Your task to perform on an android device: add a contact in the contacts app Image 0: 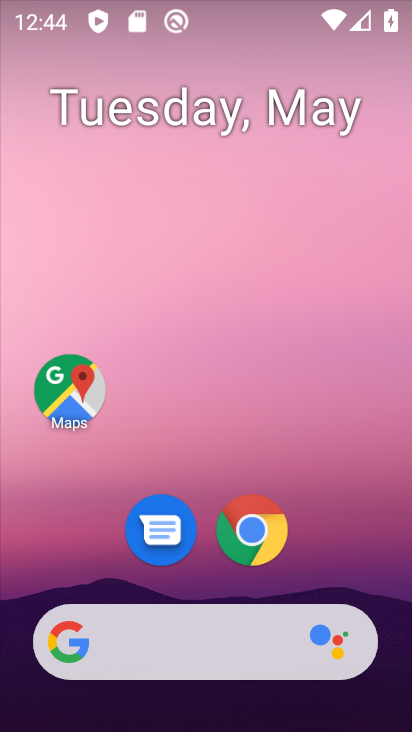
Step 0: drag from (169, 603) to (173, 279)
Your task to perform on an android device: add a contact in the contacts app Image 1: 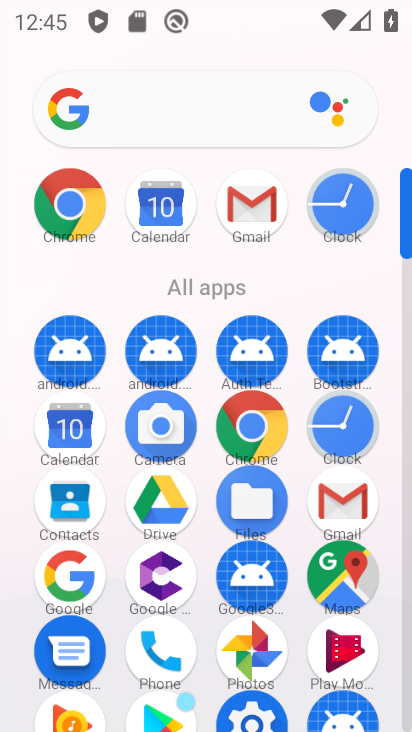
Step 1: click (72, 506)
Your task to perform on an android device: add a contact in the contacts app Image 2: 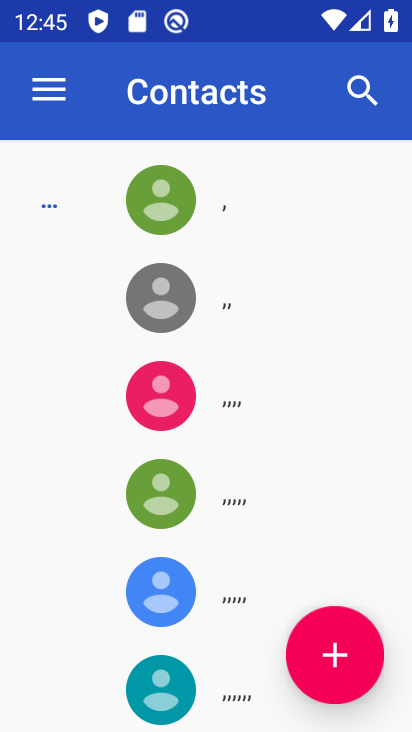
Step 2: click (330, 657)
Your task to perform on an android device: add a contact in the contacts app Image 3: 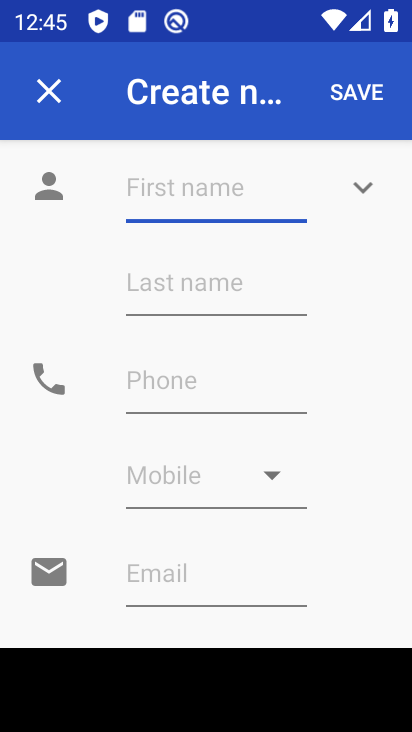
Step 3: click (220, 200)
Your task to perform on an android device: add a contact in the contacts app Image 4: 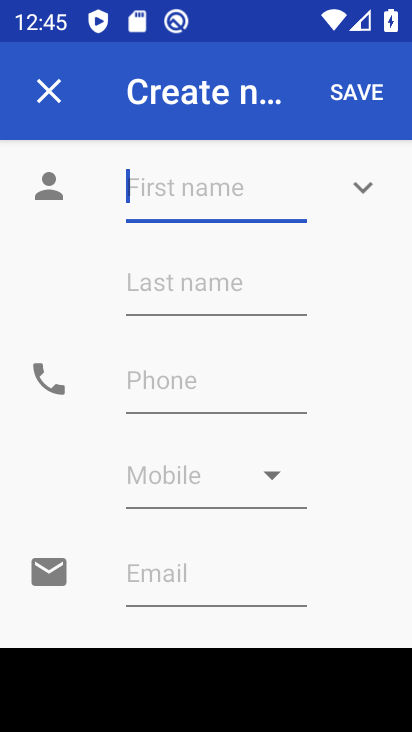
Step 4: type "vdfdf"
Your task to perform on an android device: add a contact in the contacts app Image 5: 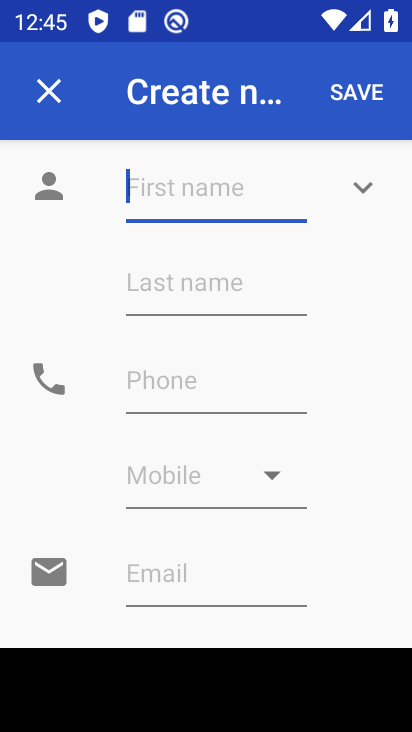
Step 5: click (163, 266)
Your task to perform on an android device: add a contact in the contacts app Image 6: 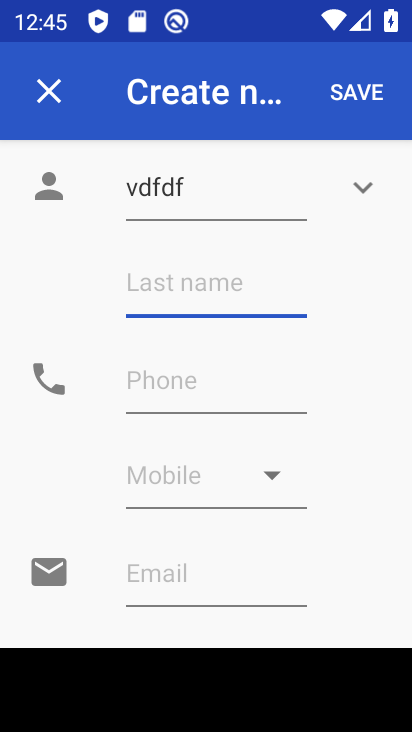
Step 6: type "fdvd"
Your task to perform on an android device: add a contact in the contacts app Image 7: 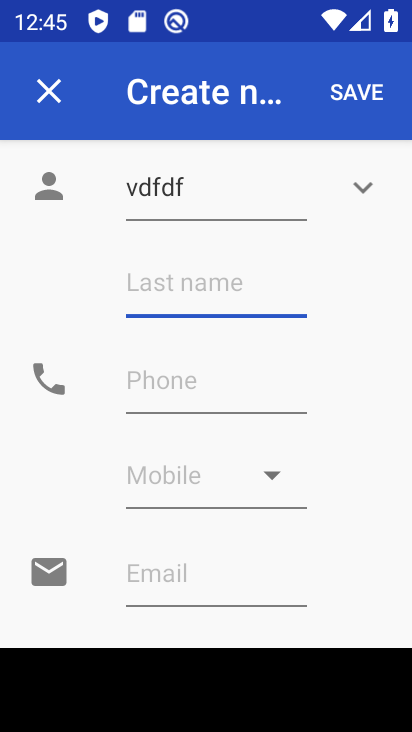
Step 7: click (170, 374)
Your task to perform on an android device: add a contact in the contacts app Image 8: 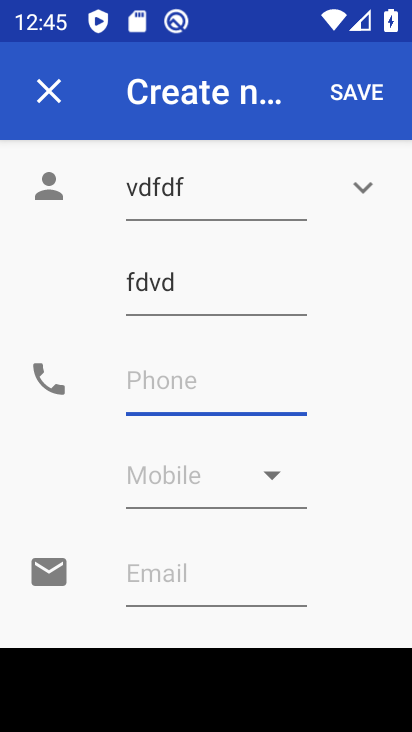
Step 8: type "344e34"
Your task to perform on an android device: add a contact in the contacts app Image 9: 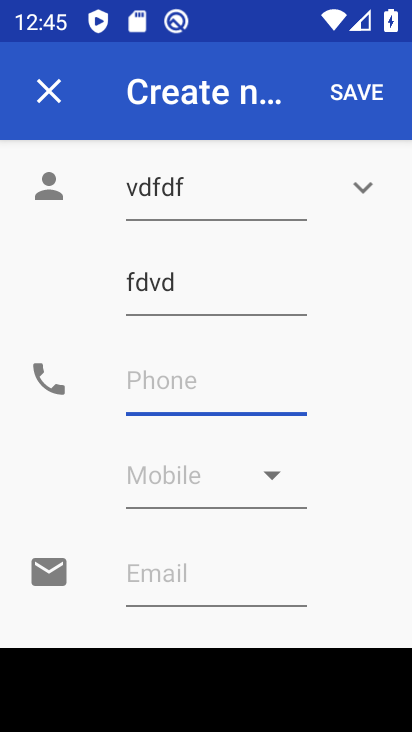
Step 9: click (174, 480)
Your task to perform on an android device: add a contact in the contacts app Image 10: 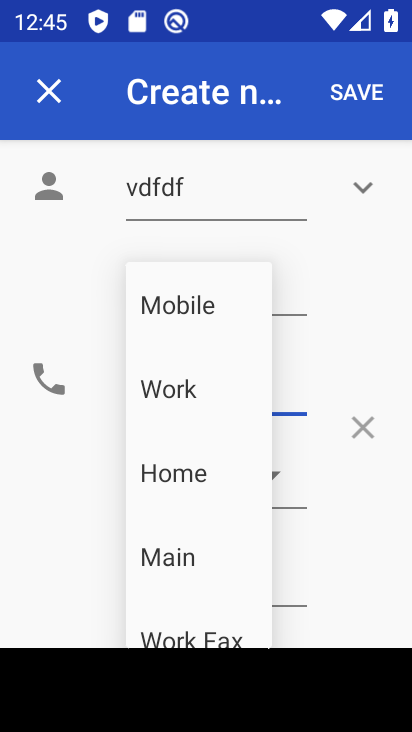
Step 10: click (352, 100)
Your task to perform on an android device: add a contact in the contacts app Image 11: 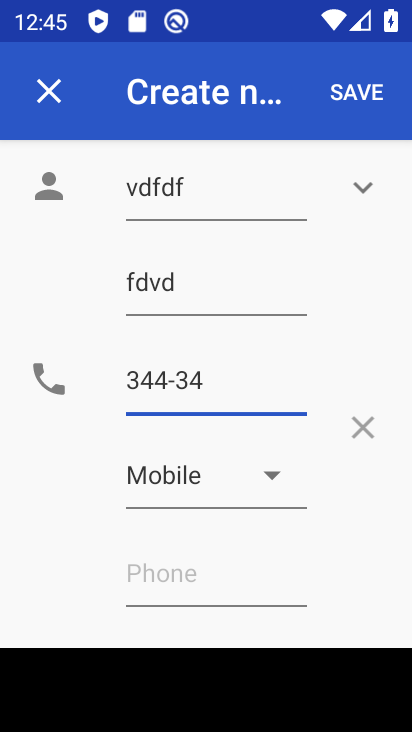
Step 11: click (365, 98)
Your task to perform on an android device: add a contact in the contacts app Image 12: 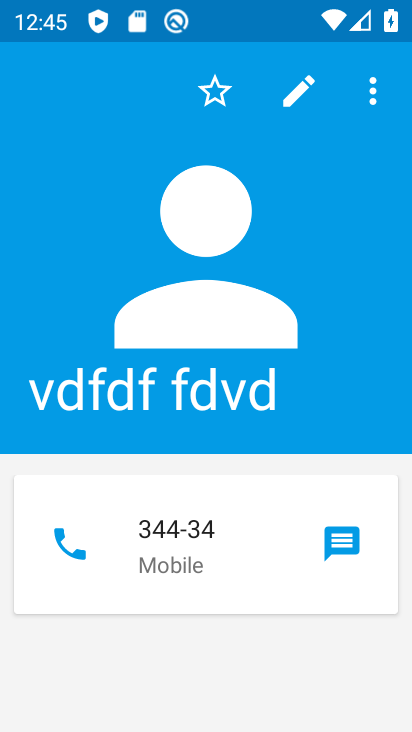
Step 12: task complete